Your task to perform on an android device: Go to Yahoo.com Image 0: 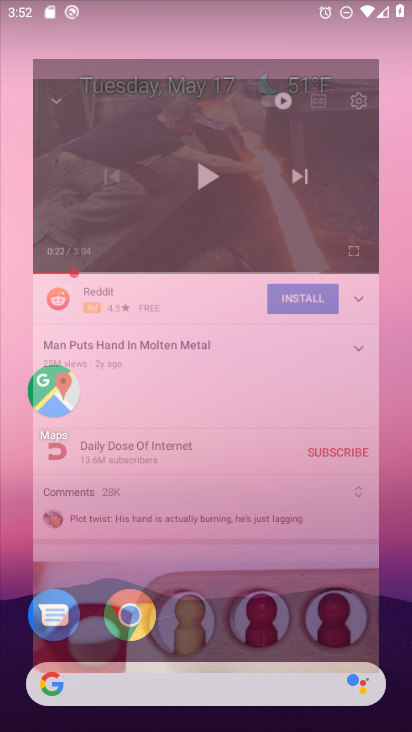
Step 0: drag from (223, 641) to (193, 87)
Your task to perform on an android device: Go to Yahoo.com Image 1: 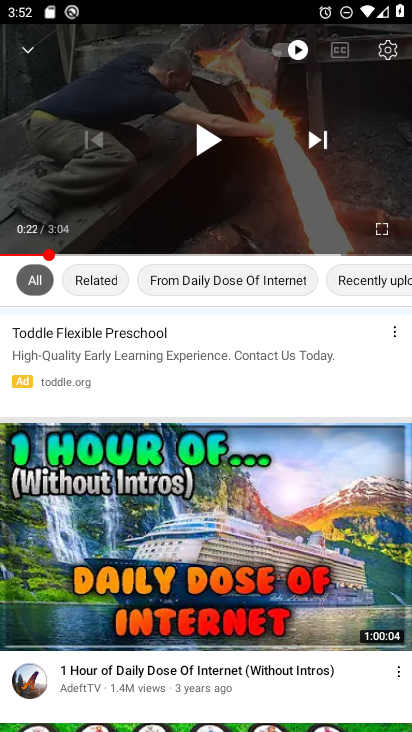
Step 1: press home button
Your task to perform on an android device: Go to Yahoo.com Image 2: 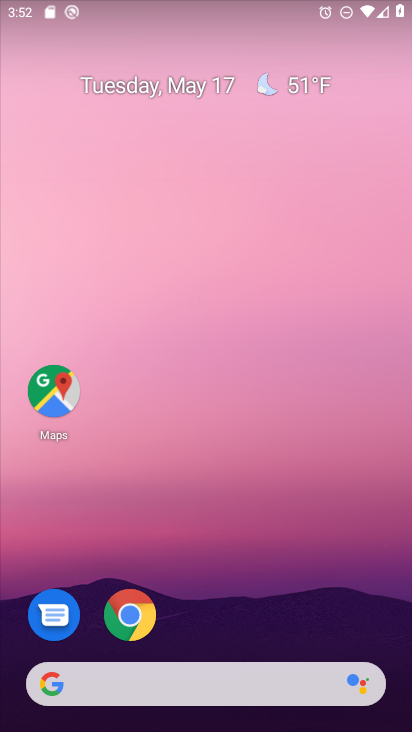
Step 2: drag from (229, 638) to (203, 73)
Your task to perform on an android device: Go to Yahoo.com Image 3: 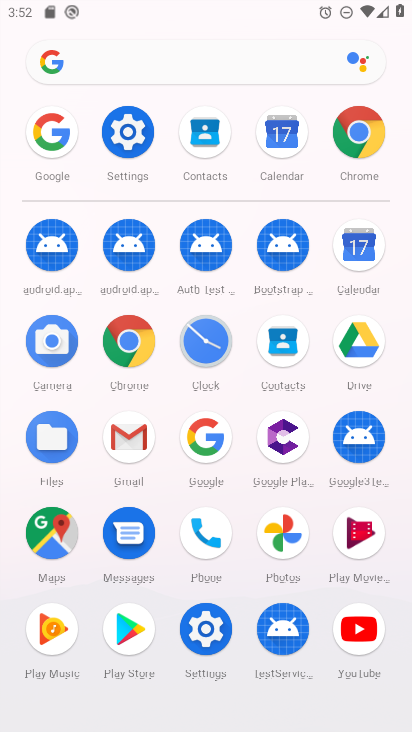
Step 3: click (359, 131)
Your task to perform on an android device: Go to Yahoo.com Image 4: 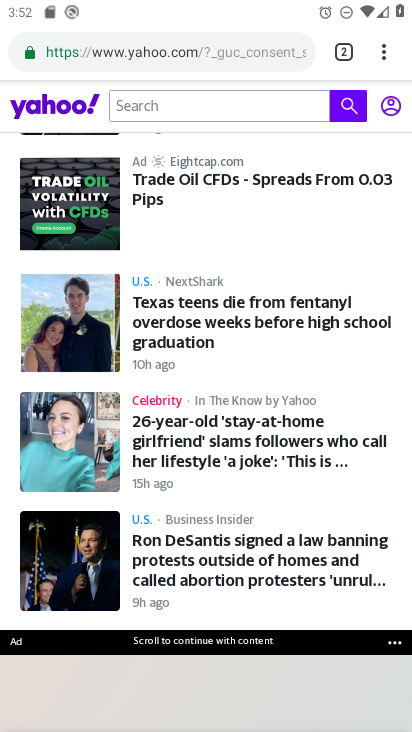
Step 4: task complete